Your task to perform on an android device: Go to CNN.com Image 0: 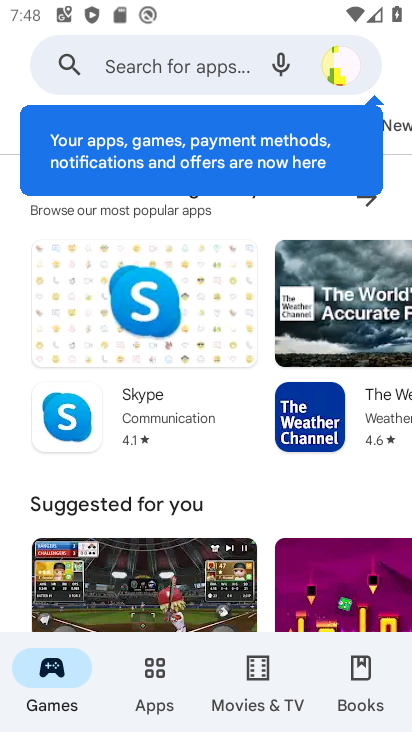
Step 0: press home button
Your task to perform on an android device: Go to CNN.com Image 1: 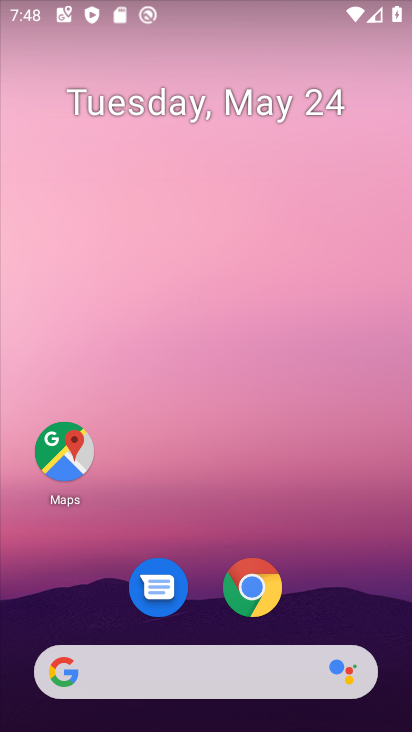
Step 1: click (253, 590)
Your task to perform on an android device: Go to CNN.com Image 2: 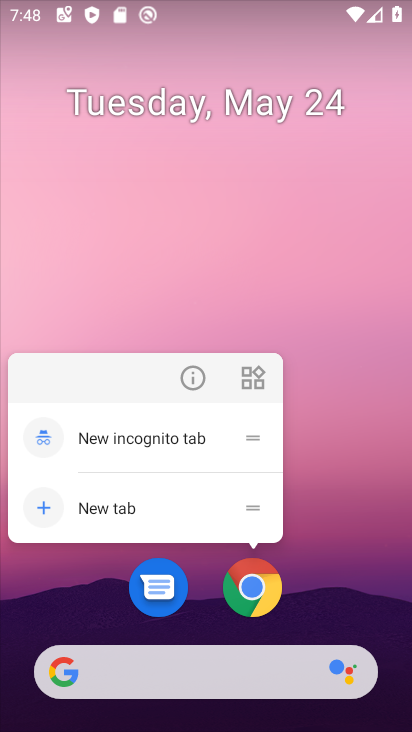
Step 2: click (253, 590)
Your task to perform on an android device: Go to CNN.com Image 3: 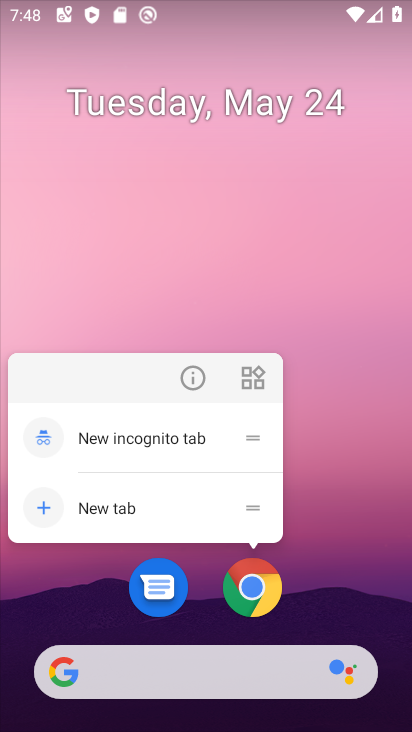
Step 3: click (255, 586)
Your task to perform on an android device: Go to CNN.com Image 4: 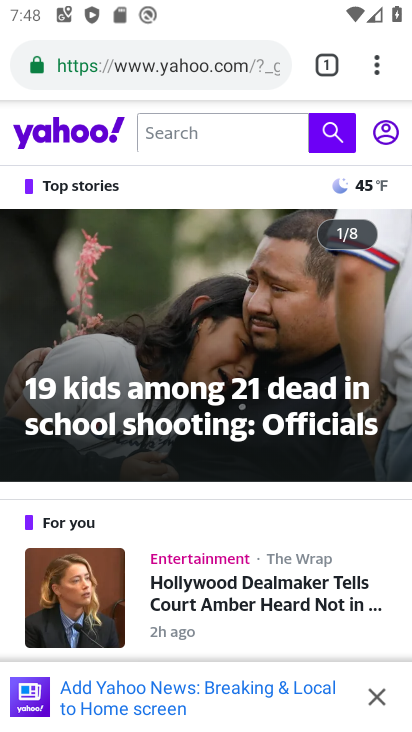
Step 4: click (196, 69)
Your task to perform on an android device: Go to CNN.com Image 5: 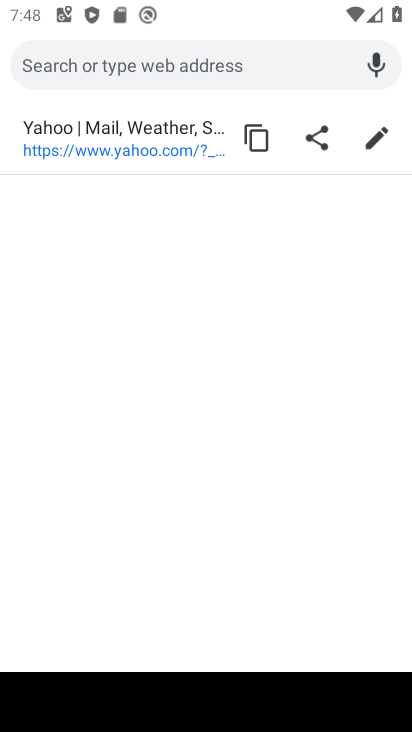
Step 5: type "CNN.com"
Your task to perform on an android device: Go to CNN.com Image 6: 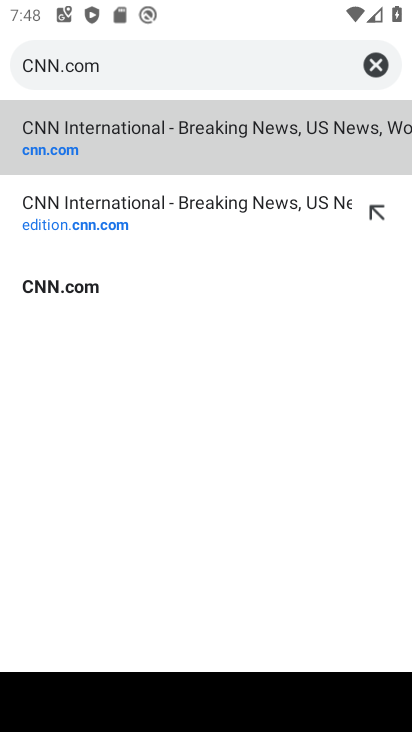
Step 6: click (233, 164)
Your task to perform on an android device: Go to CNN.com Image 7: 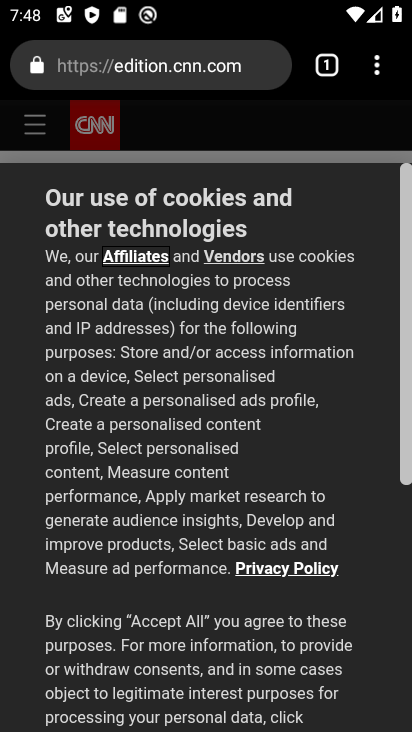
Step 7: task complete